Your task to perform on an android device: open wifi settings Image 0: 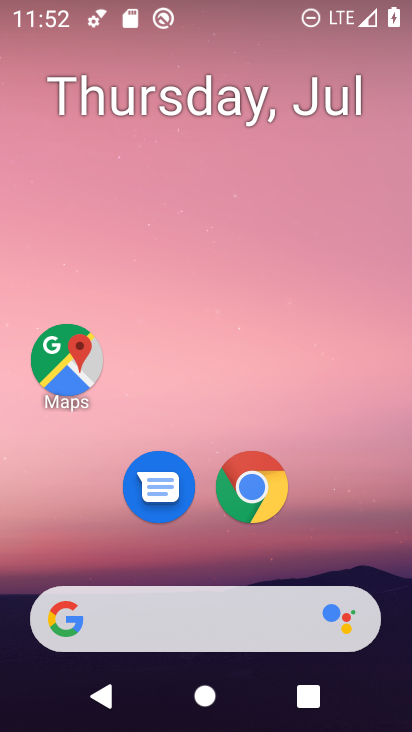
Step 0: press home button
Your task to perform on an android device: open wifi settings Image 1: 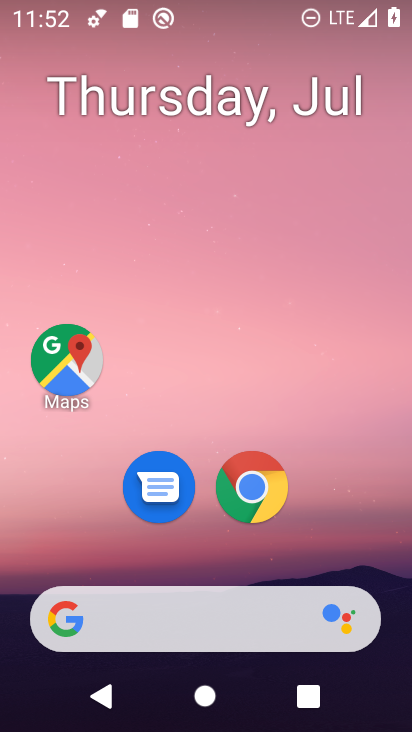
Step 1: drag from (292, 589) to (283, 86)
Your task to perform on an android device: open wifi settings Image 2: 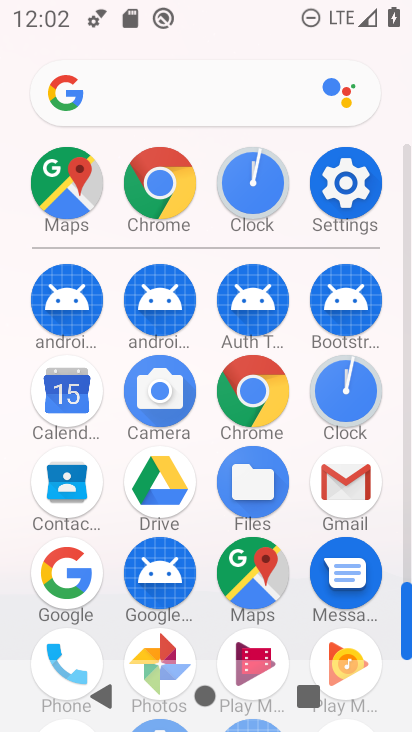
Step 2: click (350, 205)
Your task to perform on an android device: open wifi settings Image 3: 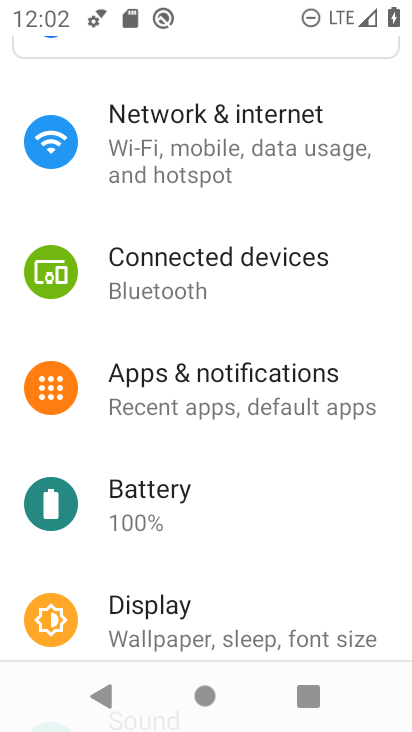
Step 3: drag from (176, 255) to (178, 648)
Your task to perform on an android device: open wifi settings Image 4: 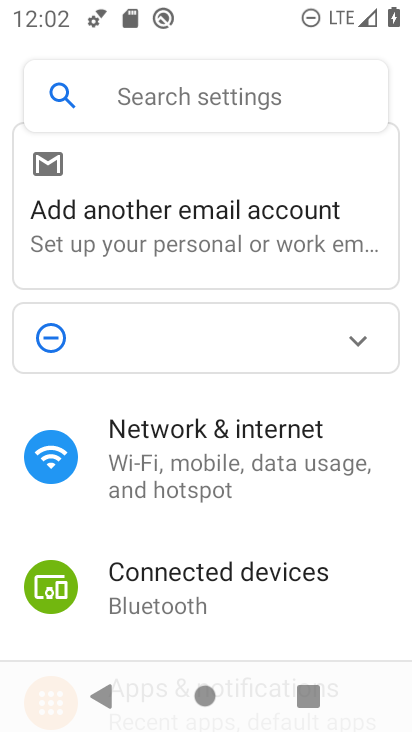
Step 4: click (210, 470)
Your task to perform on an android device: open wifi settings Image 5: 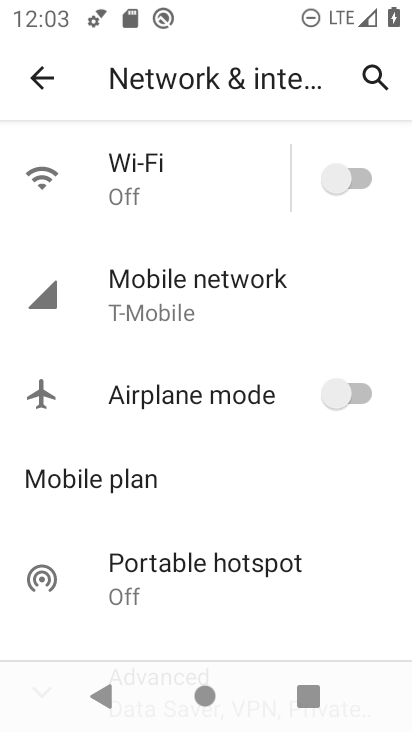
Step 5: click (181, 170)
Your task to perform on an android device: open wifi settings Image 6: 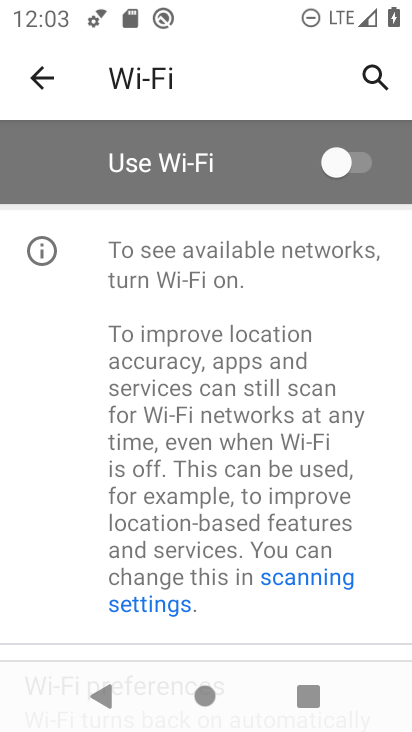
Step 6: task complete